Your task to perform on an android device: change notifications settings Image 0: 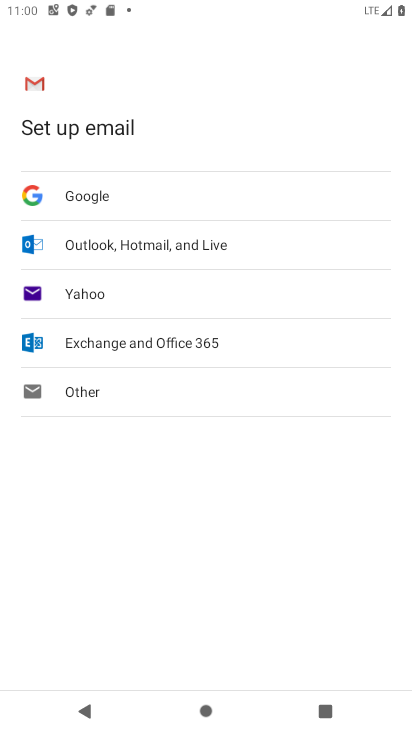
Step 0: press back button
Your task to perform on an android device: change notifications settings Image 1: 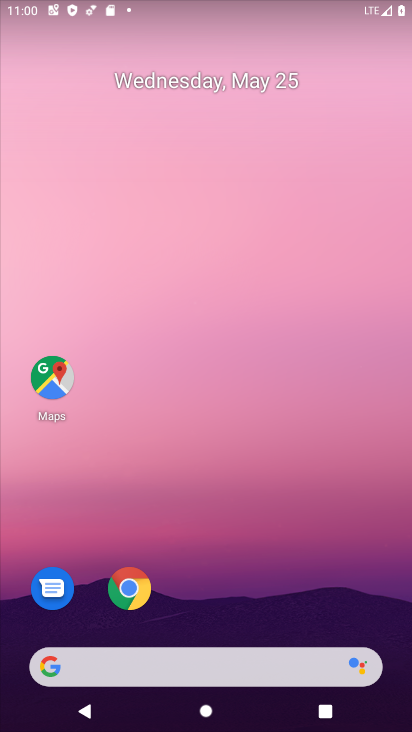
Step 1: drag from (231, 637) to (285, 120)
Your task to perform on an android device: change notifications settings Image 2: 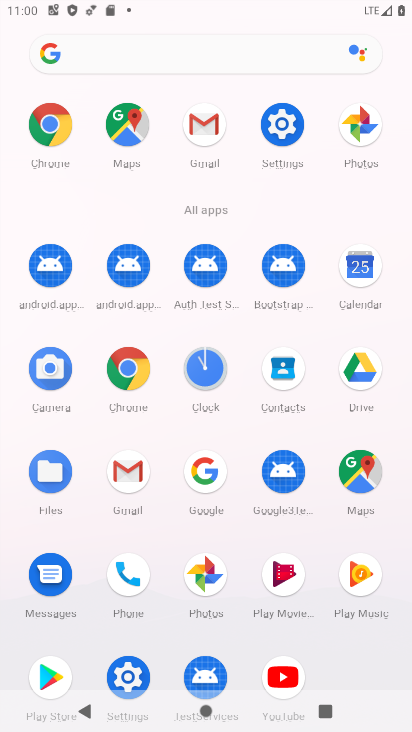
Step 2: click (282, 104)
Your task to perform on an android device: change notifications settings Image 3: 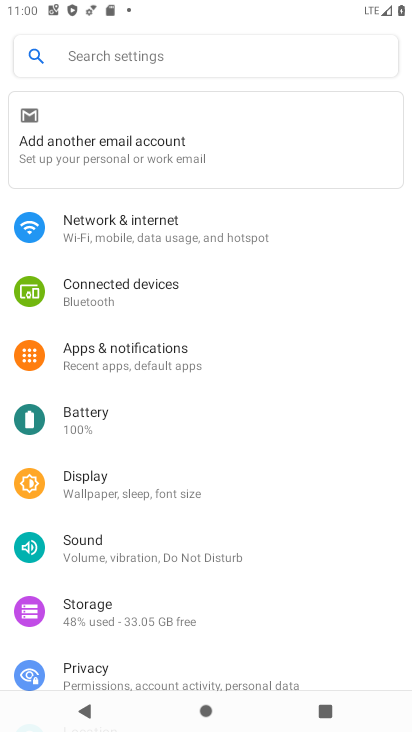
Step 3: click (168, 349)
Your task to perform on an android device: change notifications settings Image 4: 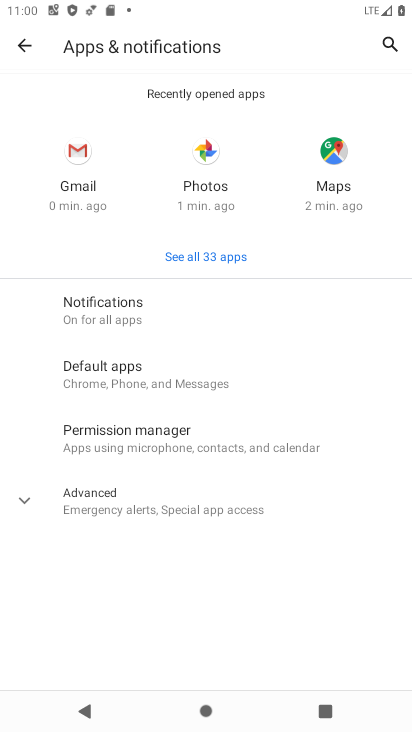
Step 4: click (149, 495)
Your task to perform on an android device: change notifications settings Image 5: 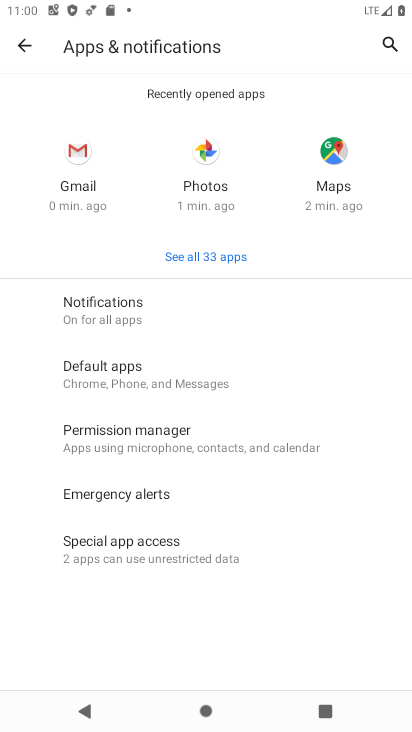
Step 5: click (137, 320)
Your task to perform on an android device: change notifications settings Image 6: 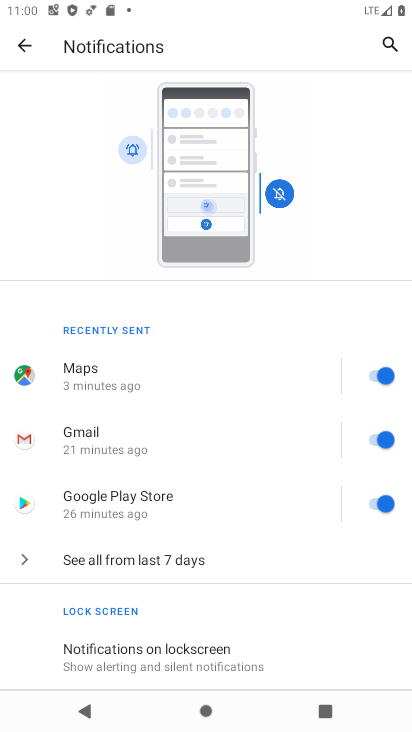
Step 6: drag from (208, 655) to (313, 114)
Your task to perform on an android device: change notifications settings Image 7: 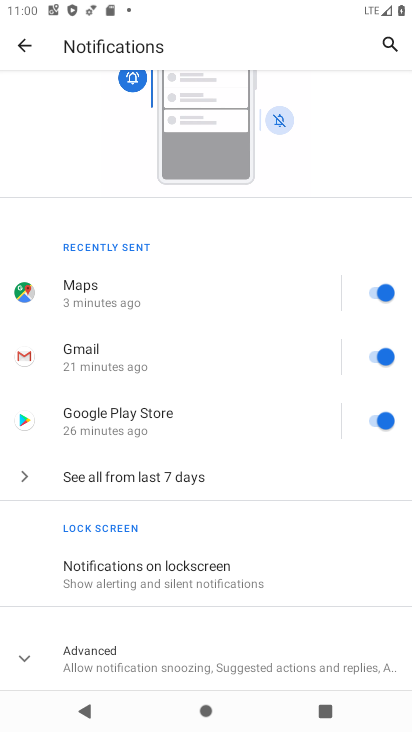
Step 7: click (169, 651)
Your task to perform on an android device: change notifications settings Image 8: 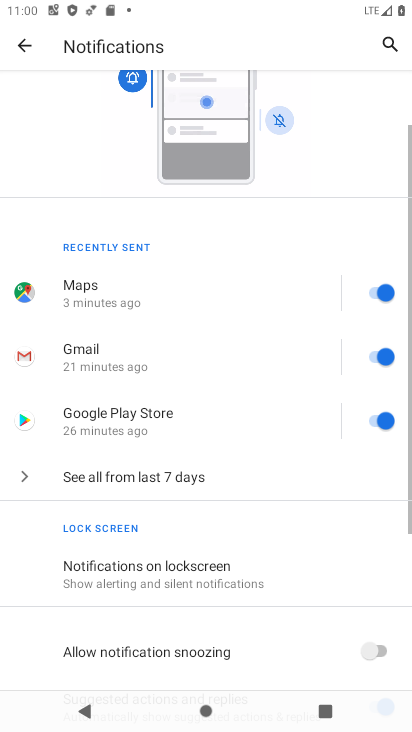
Step 8: drag from (169, 651) to (351, 90)
Your task to perform on an android device: change notifications settings Image 9: 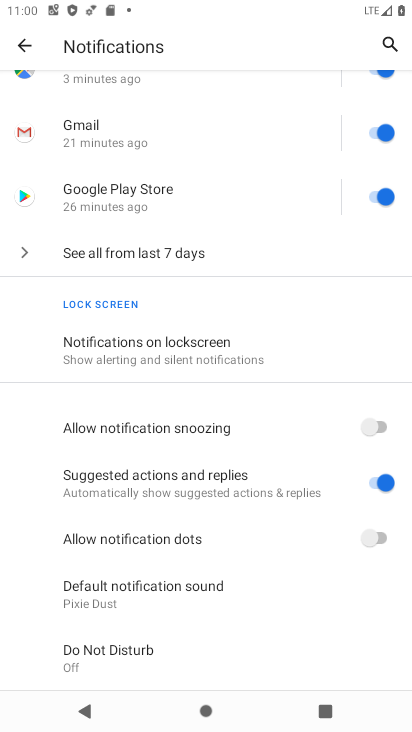
Step 9: click (377, 545)
Your task to perform on an android device: change notifications settings Image 10: 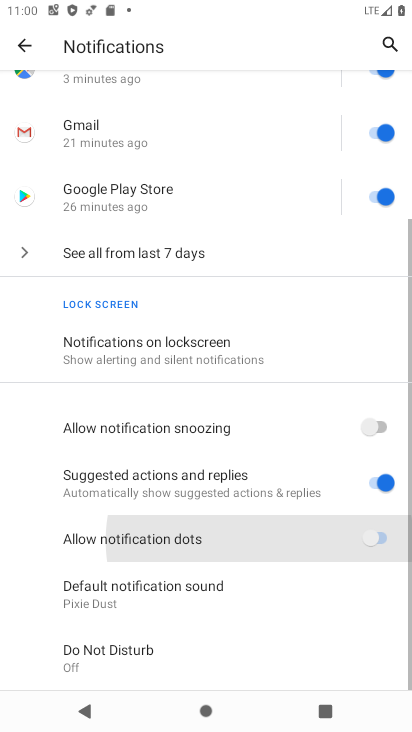
Step 10: click (377, 486)
Your task to perform on an android device: change notifications settings Image 11: 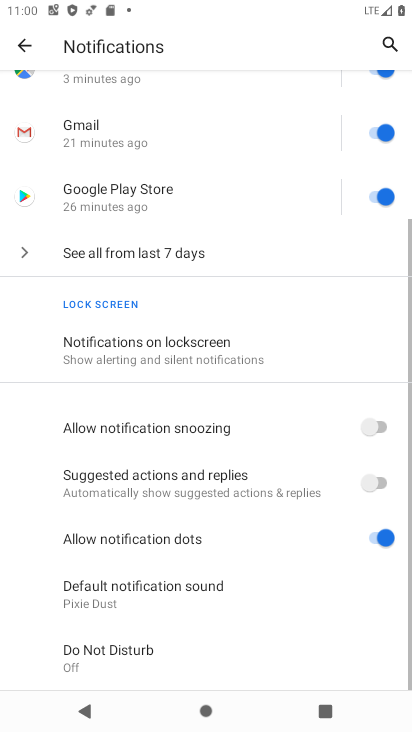
Step 11: click (382, 431)
Your task to perform on an android device: change notifications settings Image 12: 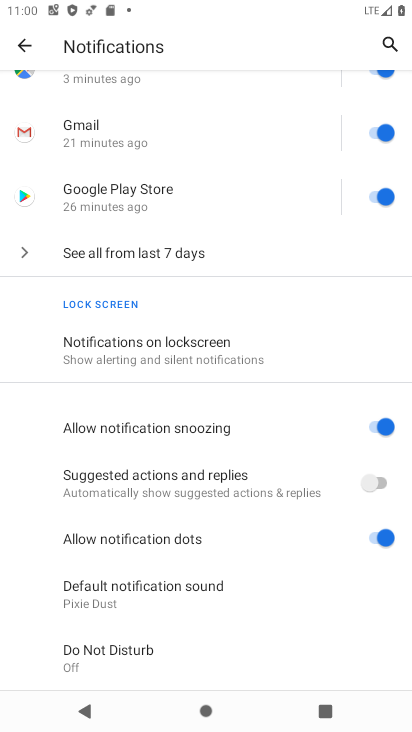
Step 12: task complete